Your task to perform on an android device: Open the calendar app, open the side menu, and click the "Day" option Image 0: 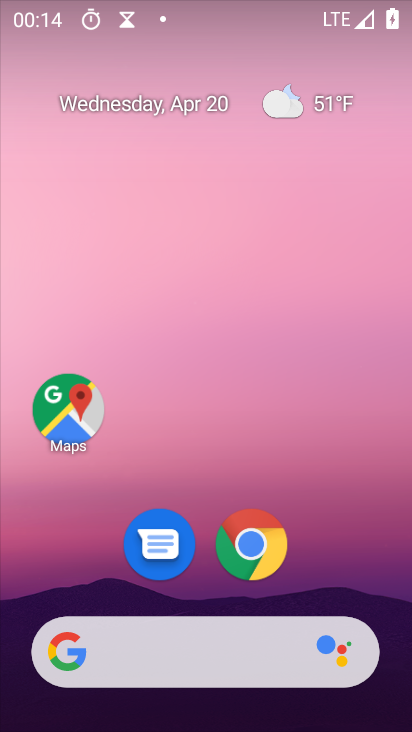
Step 0: drag from (327, 552) to (342, 172)
Your task to perform on an android device: Open the calendar app, open the side menu, and click the "Day" option Image 1: 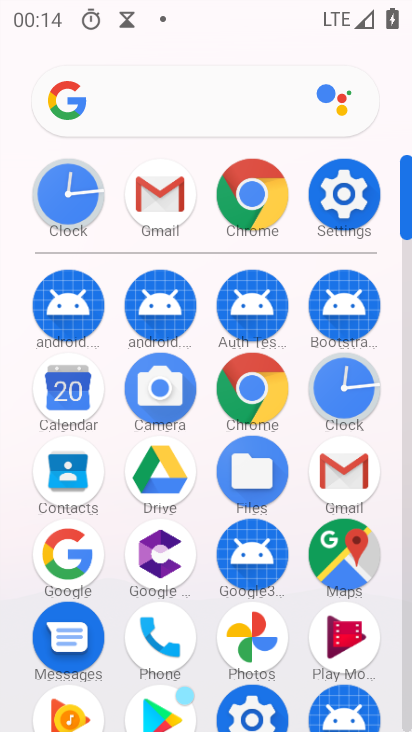
Step 1: click (79, 394)
Your task to perform on an android device: Open the calendar app, open the side menu, and click the "Day" option Image 2: 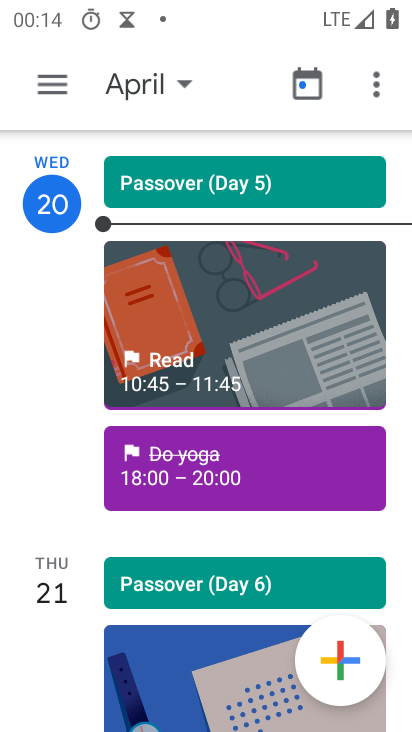
Step 2: click (55, 87)
Your task to perform on an android device: Open the calendar app, open the side menu, and click the "Day" option Image 3: 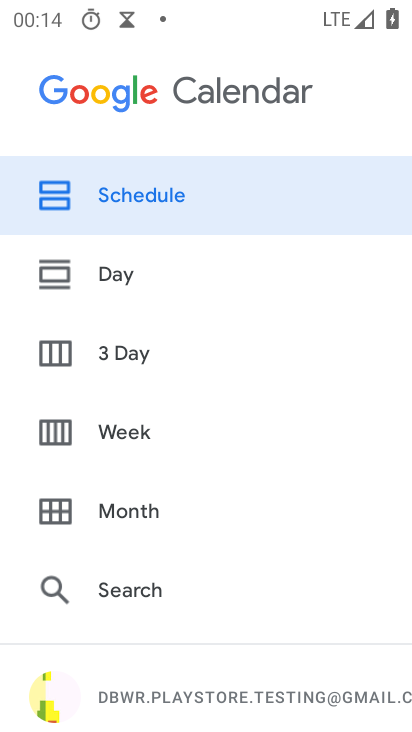
Step 3: click (66, 277)
Your task to perform on an android device: Open the calendar app, open the side menu, and click the "Day" option Image 4: 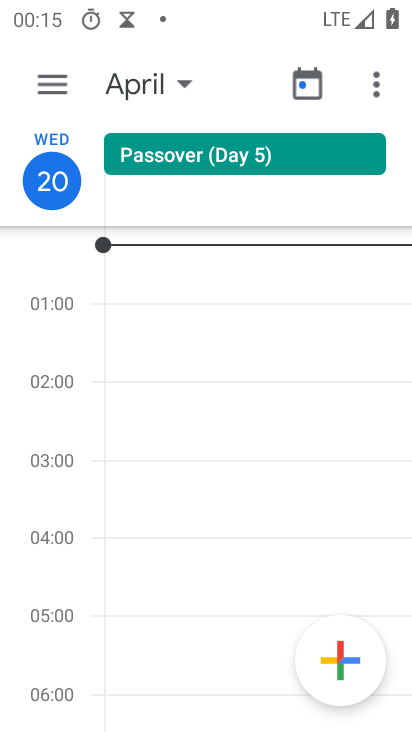
Step 4: task complete